Your task to perform on an android device: search for starred emails in the gmail app Image 0: 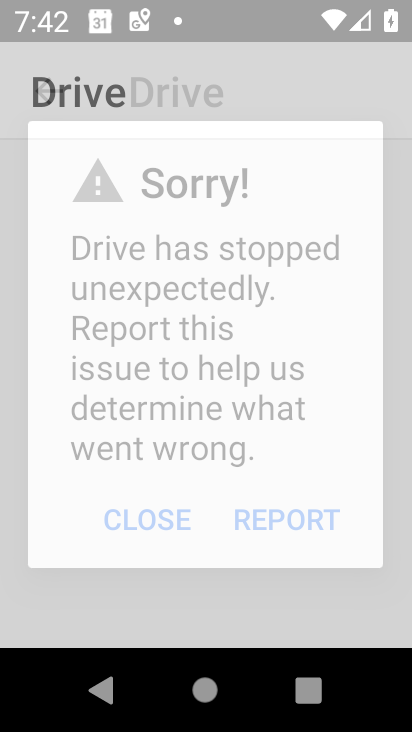
Step 0: press home button
Your task to perform on an android device: search for starred emails in the gmail app Image 1: 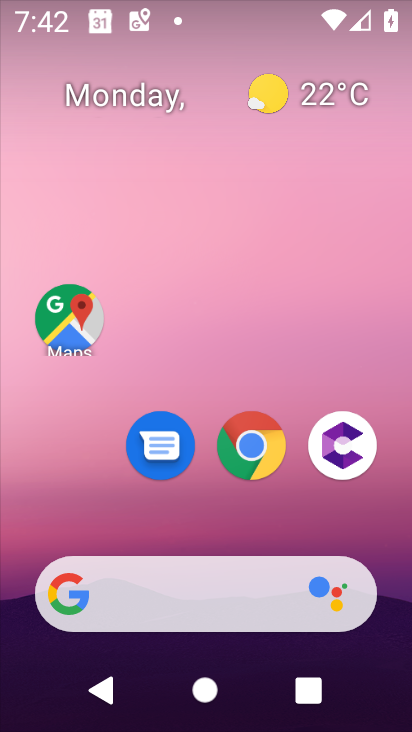
Step 1: drag from (197, 321) to (183, 0)
Your task to perform on an android device: search for starred emails in the gmail app Image 2: 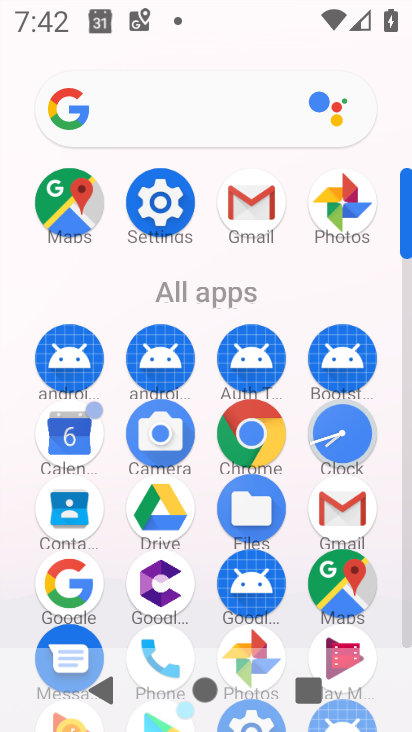
Step 2: click (262, 185)
Your task to perform on an android device: search for starred emails in the gmail app Image 3: 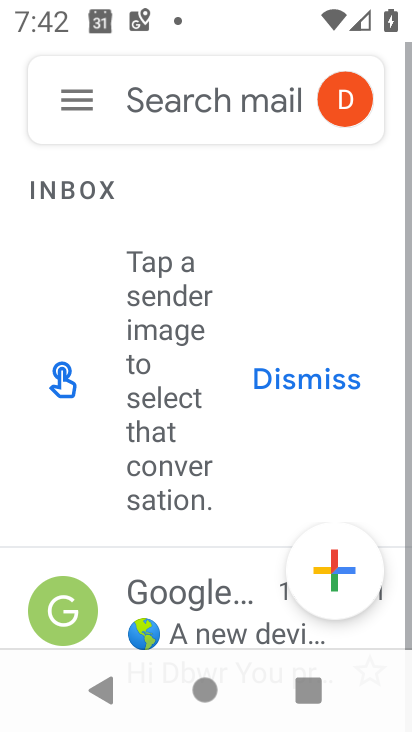
Step 3: click (64, 97)
Your task to perform on an android device: search for starred emails in the gmail app Image 4: 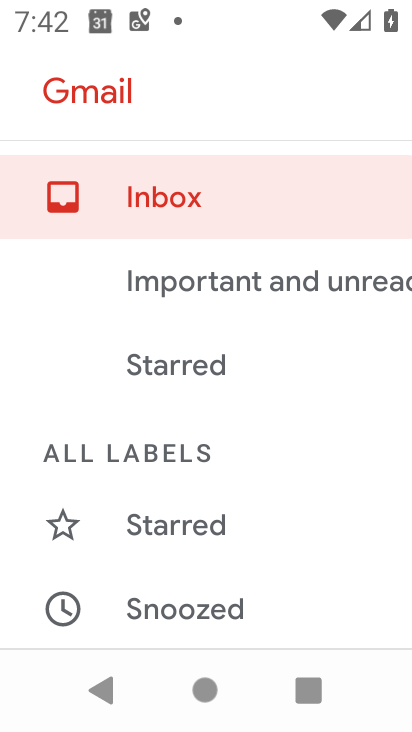
Step 4: click (186, 359)
Your task to perform on an android device: search for starred emails in the gmail app Image 5: 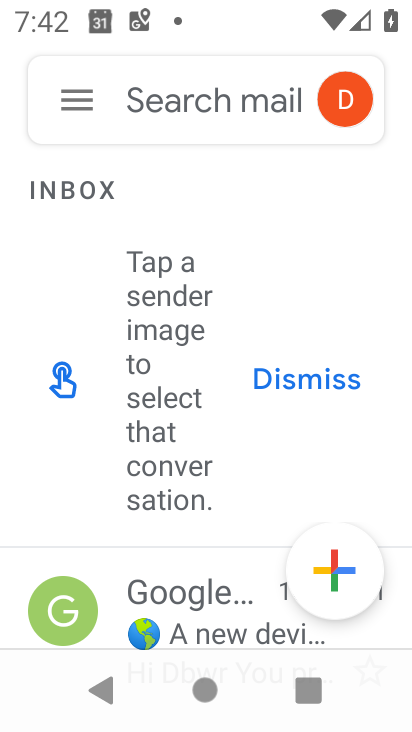
Step 5: task complete